Your task to perform on an android device: install app "Upside-Cash back on gas & food" Image 0: 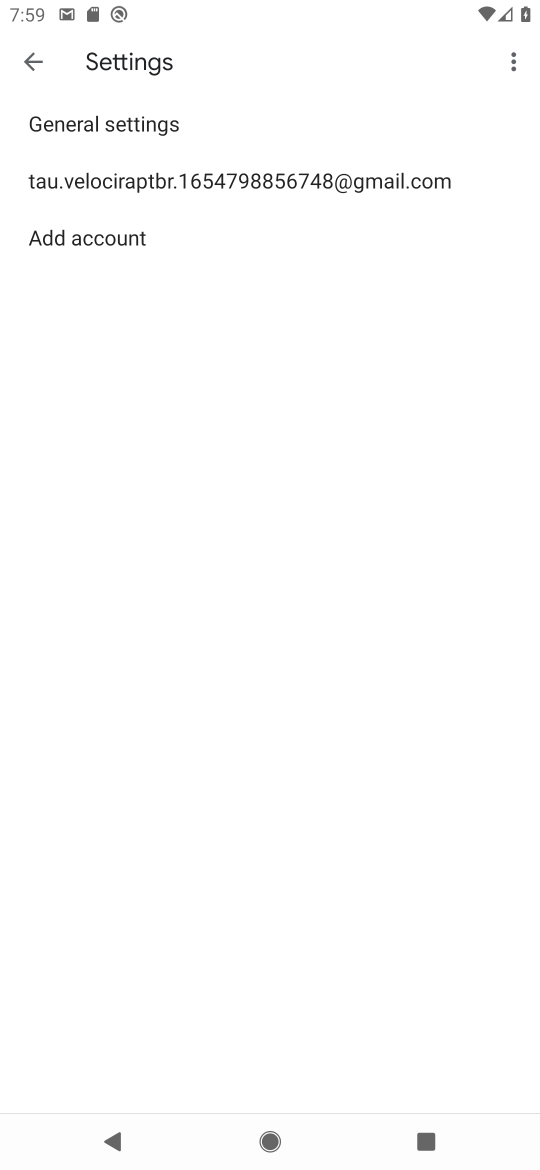
Step 0: press home button
Your task to perform on an android device: install app "Upside-Cash back on gas & food" Image 1: 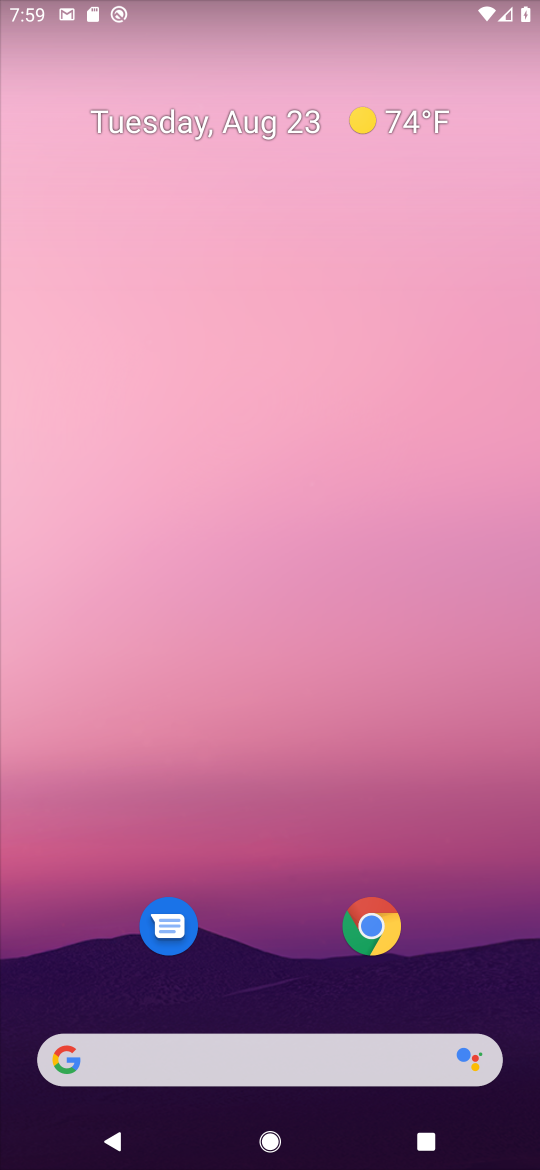
Step 1: drag from (271, 946) to (367, 2)
Your task to perform on an android device: install app "Upside-Cash back on gas & food" Image 2: 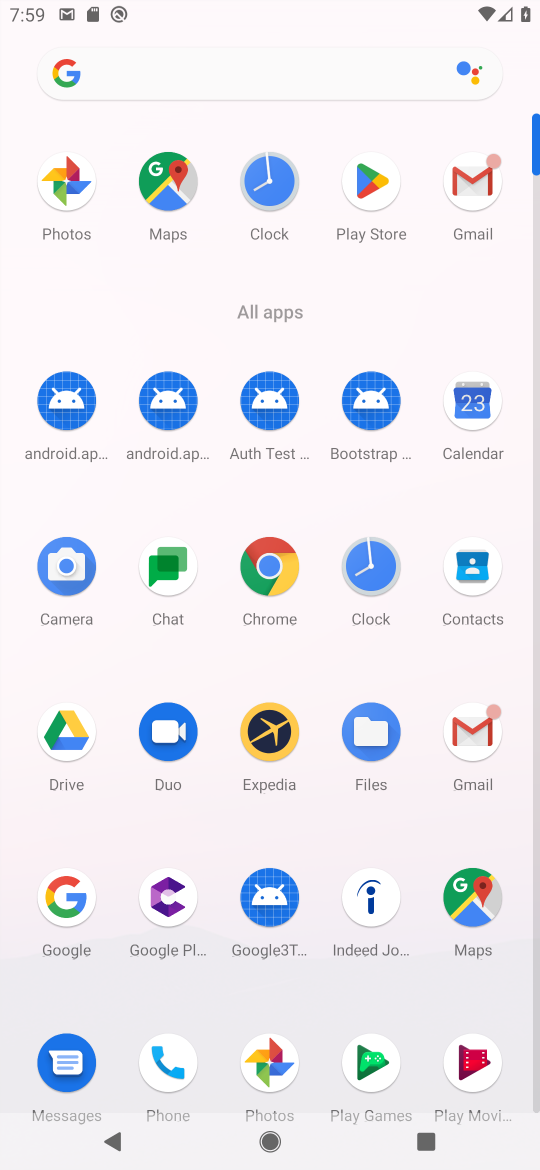
Step 2: click (386, 195)
Your task to perform on an android device: install app "Upside-Cash back on gas & food" Image 3: 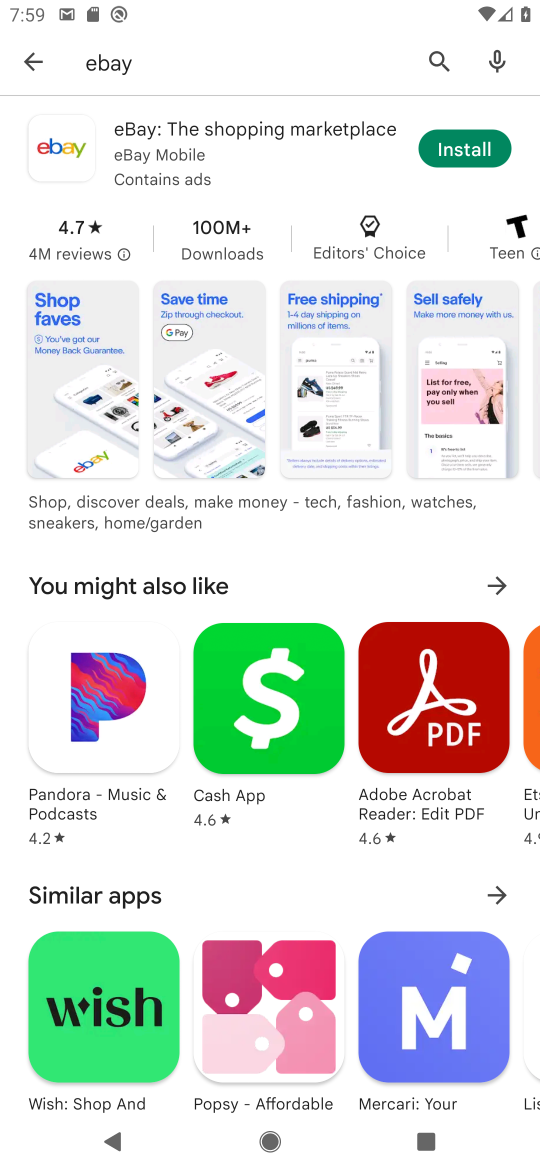
Step 3: click (173, 57)
Your task to perform on an android device: install app "Upside-Cash back on gas & food" Image 4: 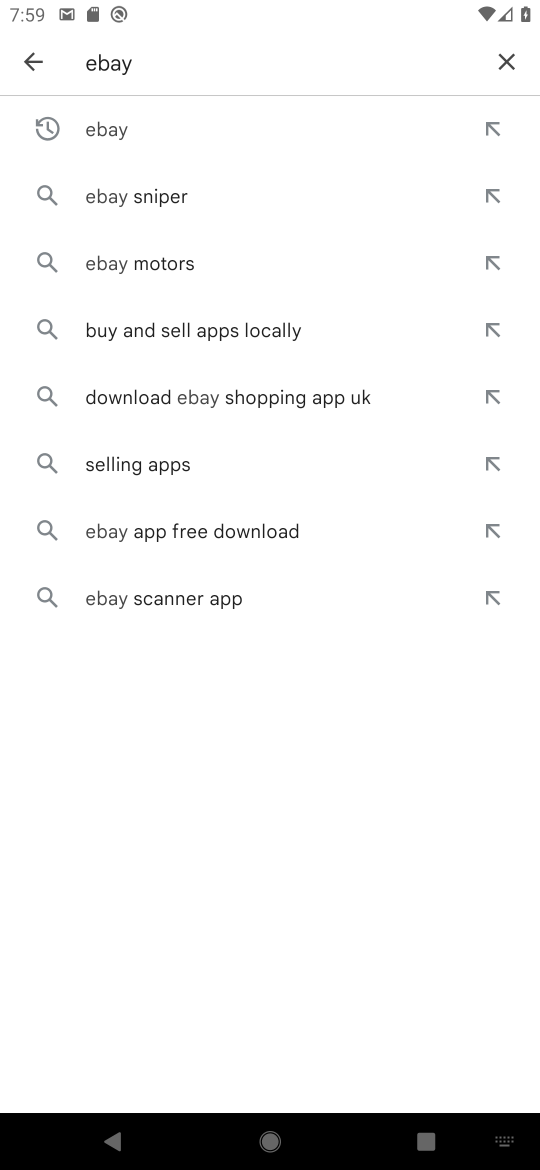
Step 4: click (494, 53)
Your task to perform on an android device: install app "Upside-Cash back on gas & food" Image 5: 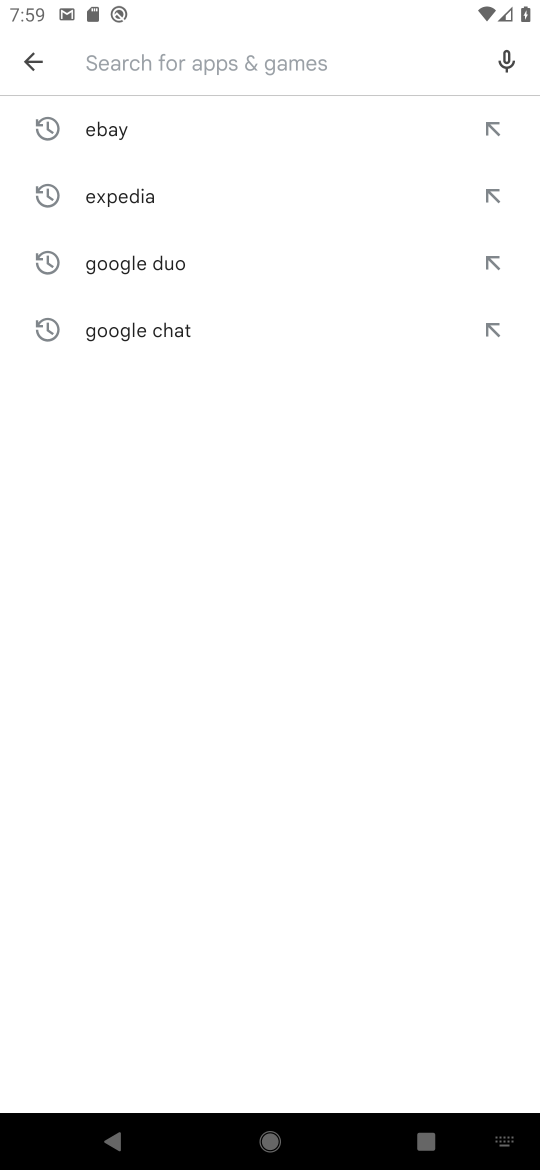
Step 5: type "upside"
Your task to perform on an android device: install app "Upside-Cash back on gas & food" Image 6: 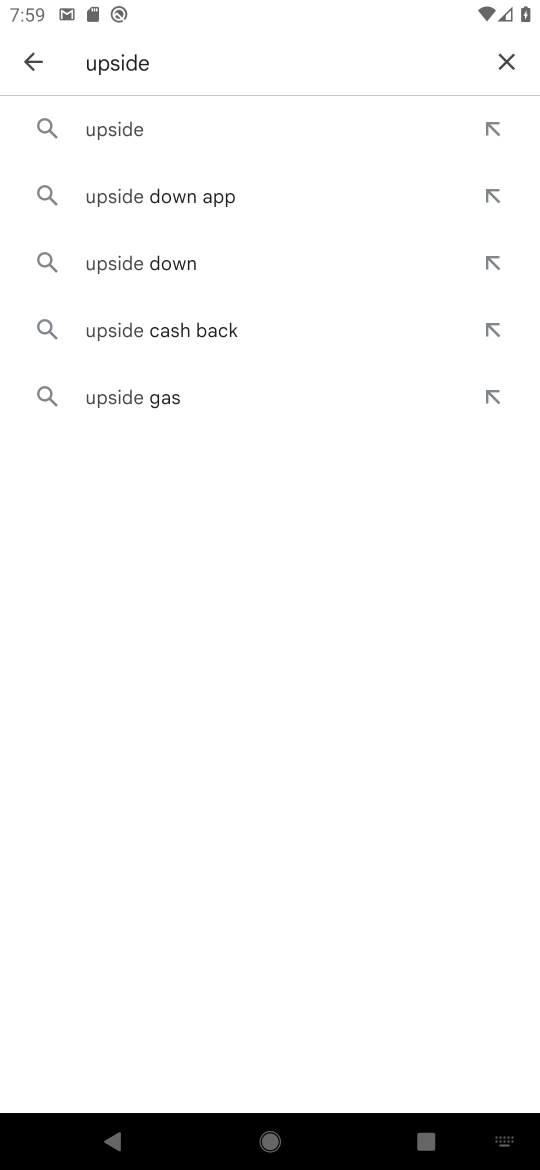
Step 6: click (137, 130)
Your task to perform on an android device: install app "Upside-Cash back on gas & food" Image 7: 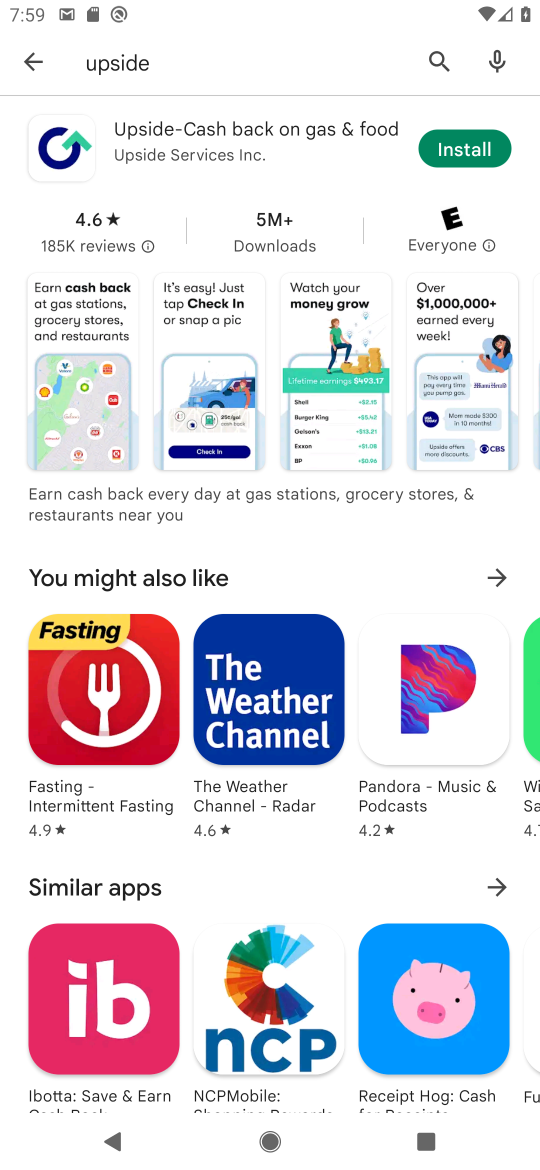
Step 7: click (476, 154)
Your task to perform on an android device: install app "Upside-Cash back on gas & food" Image 8: 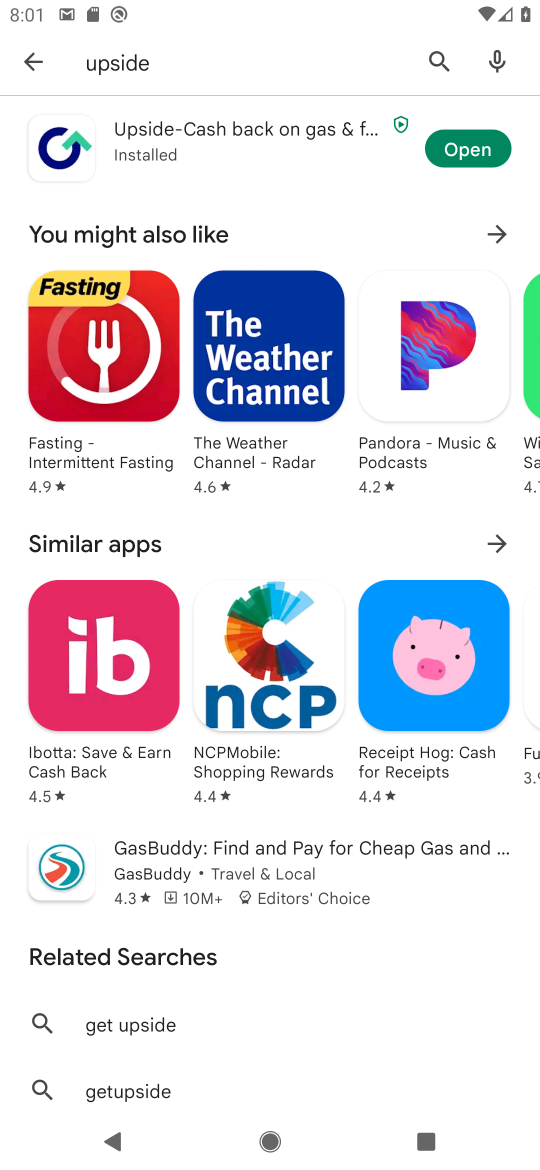
Step 8: task complete